Your task to perform on an android device: Check the news Image 0: 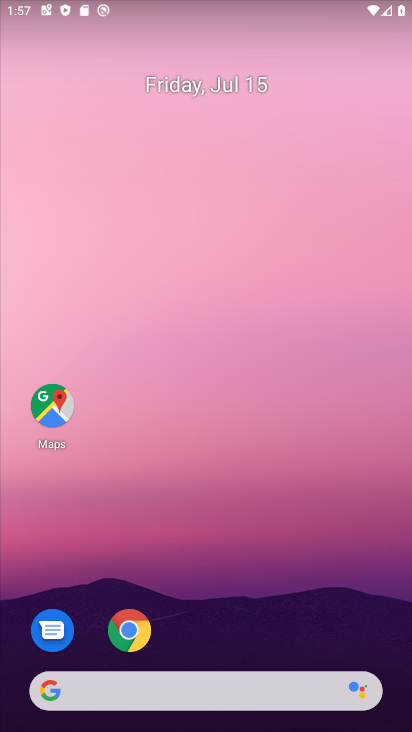
Step 0: drag from (16, 273) to (406, 404)
Your task to perform on an android device: Check the news Image 1: 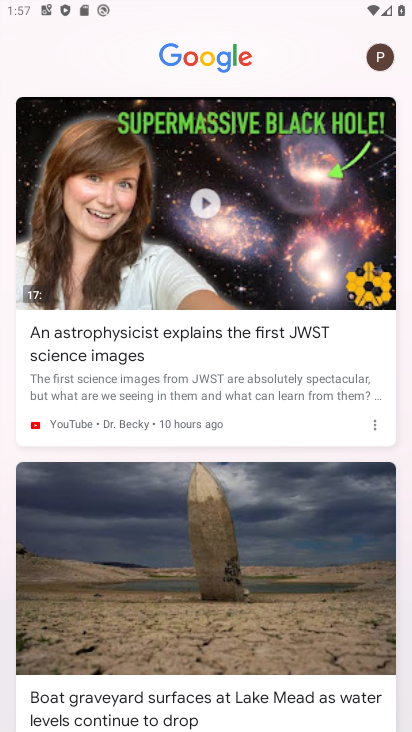
Step 1: task complete